Your task to perform on an android device: add a label to a message in the gmail app Image 0: 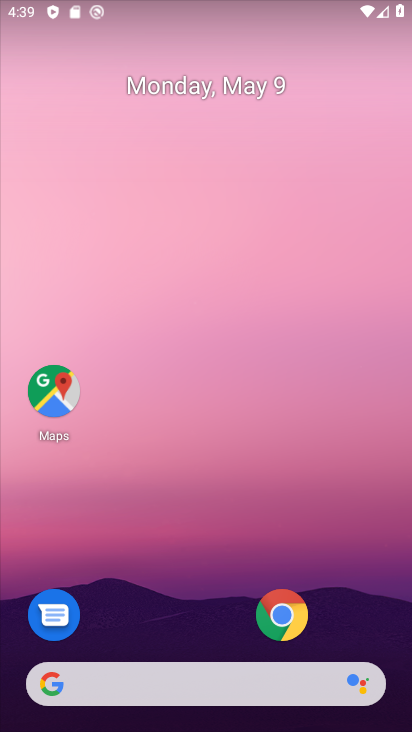
Step 0: drag from (179, 667) to (188, 314)
Your task to perform on an android device: add a label to a message in the gmail app Image 1: 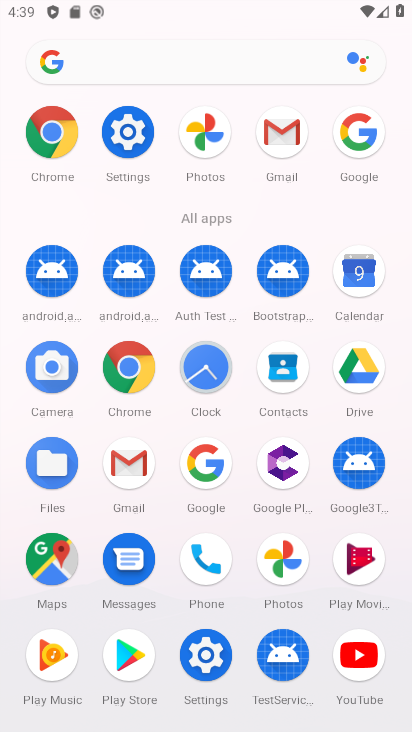
Step 1: click (276, 153)
Your task to perform on an android device: add a label to a message in the gmail app Image 2: 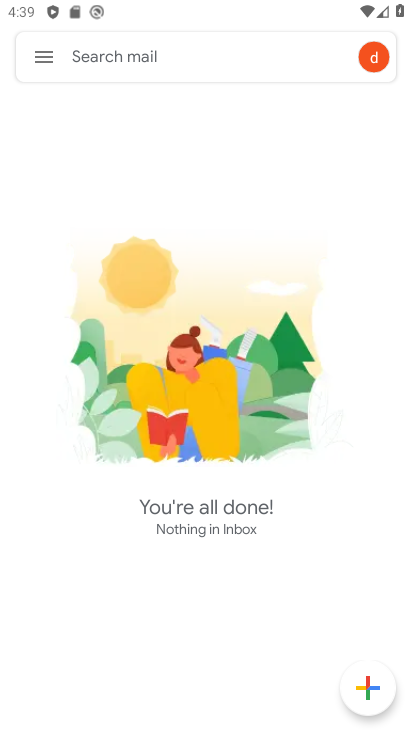
Step 2: click (45, 57)
Your task to perform on an android device: add a label to a message in the gmail app Image 3: 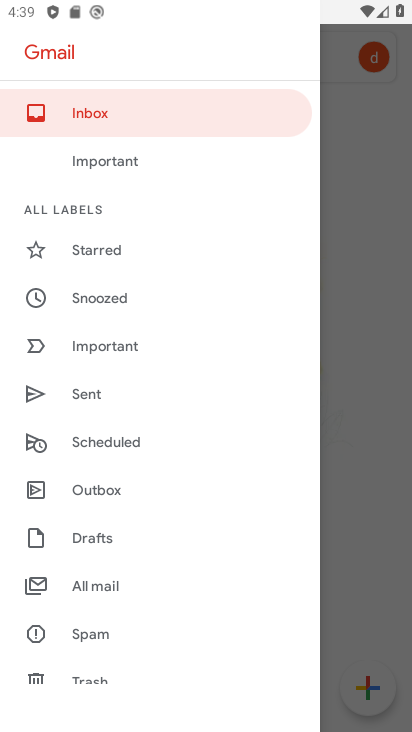
Step 3: click (103, 121)
Your task to perform on an android device: add a label to a message in the gmail app Image 4: 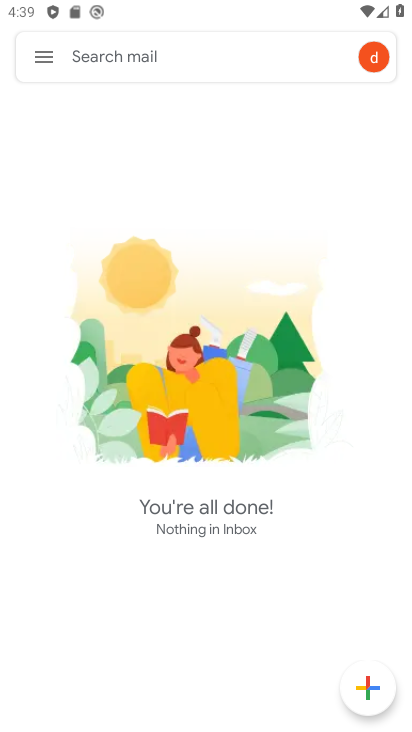
Step 4: task complete